Your task to perform on an android device: Open sound settings Image 0: 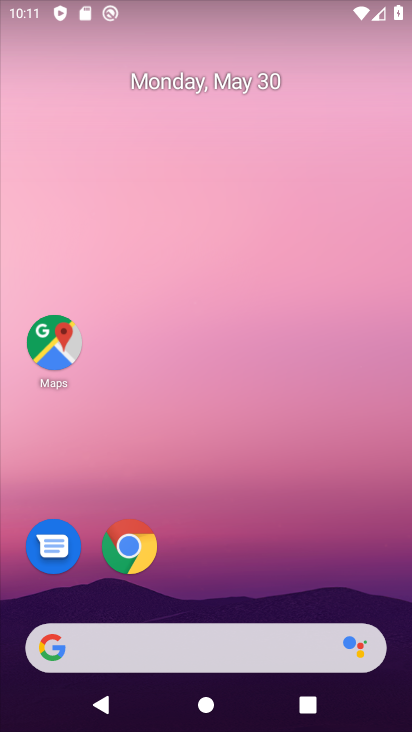
Step 0: drag from (220, 597) to (229, 60)
Your task to perform on an android device: Open sound settings Image 1: 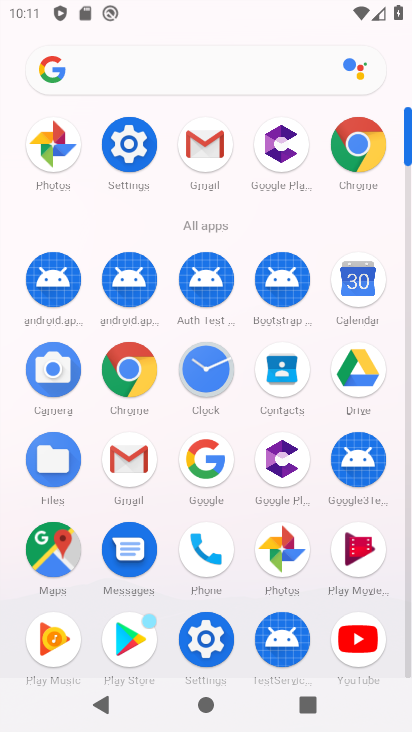
Step 1: click (131, 142)
Your task to perform on an android device: Open sound settings Image 2: 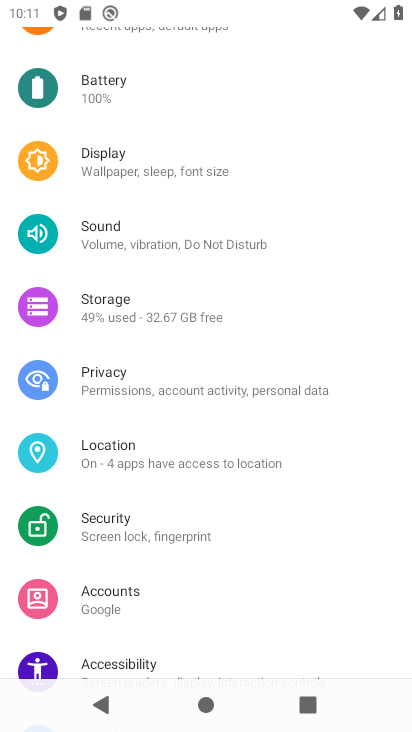
Step 2: click (141, 239)
Your task to perform on an android device: Open sound settings Image 3: 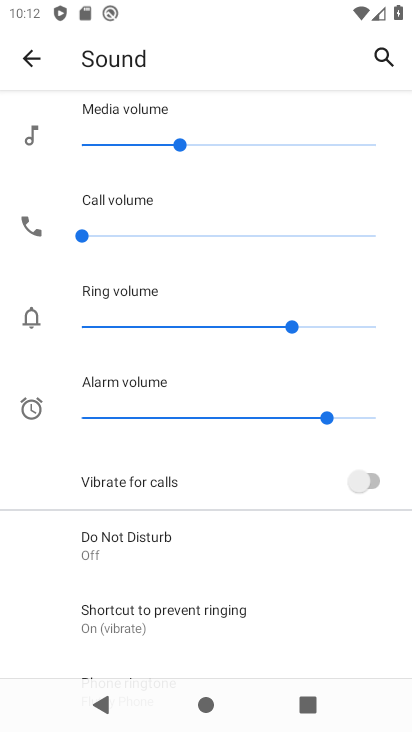
Step 3: task complete